Your task to perform on an android device: Search for pizza restaurants on Maps Image 0: 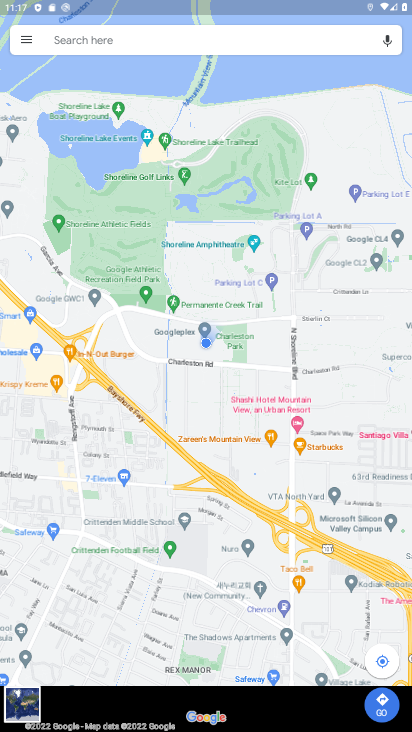
Step 0: press home button
Your task to perform on an android device: Search for pizza restaurants on Maps Image 1: 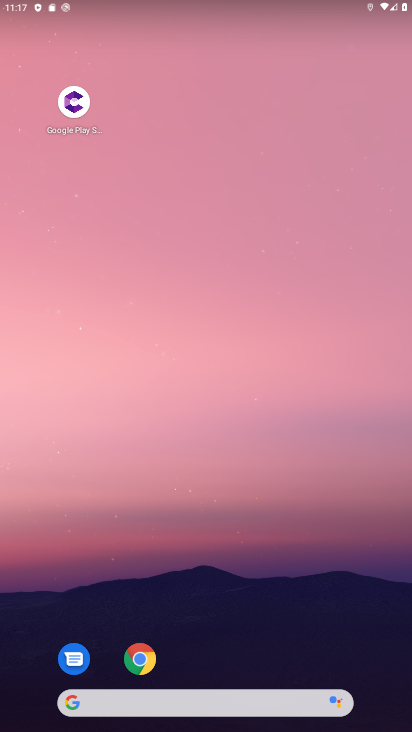
Step 1: drag from (220, 641) to (212, 180)
Your task to perform on an android device: Search for pizza restaurants on Maps Image 2: 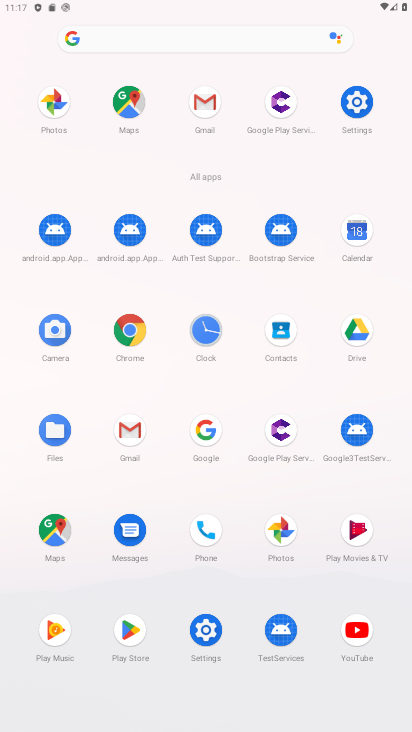
Step 2: click (55, 532)
Your task to perform on an android device: Search for pizza restaurants on Maps Image 3: 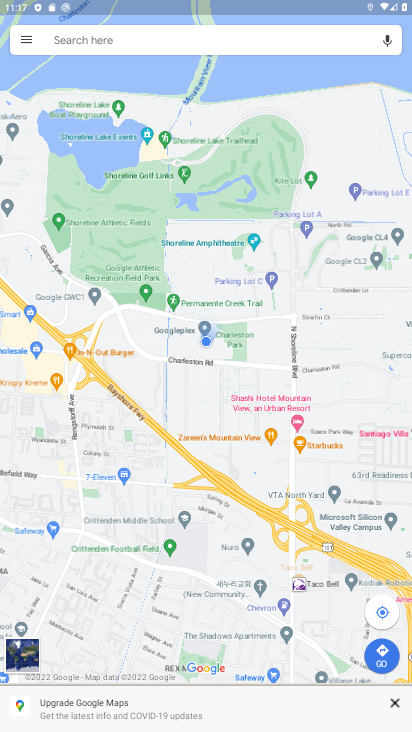
Step 3: click (248, 38)
Your task to perform on an android device: Search for pizza restaurants on Maps Image 4: 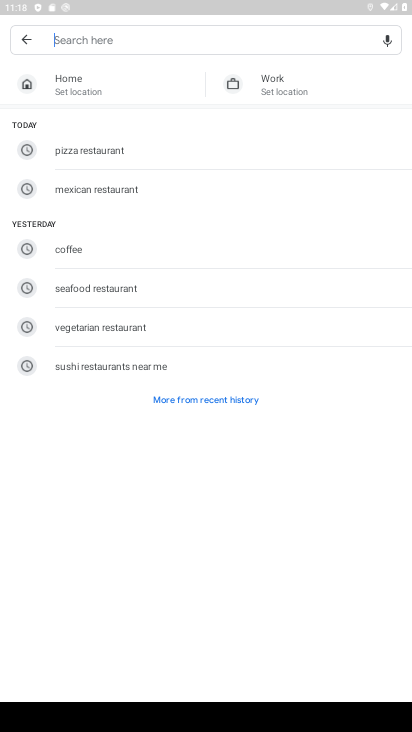
Step 4: click (152, 150)
Your task to perform on an android device: Search for pizza restaurants on Maps Image 5: 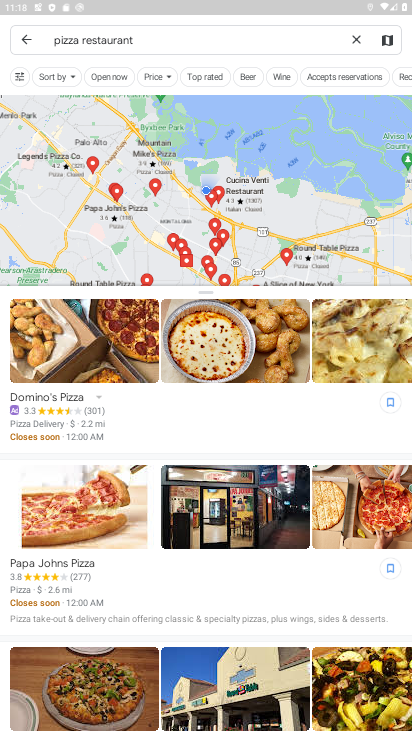
Step 5: task complete